Your task to perform on an android device: open device folders in google photos Image 0: 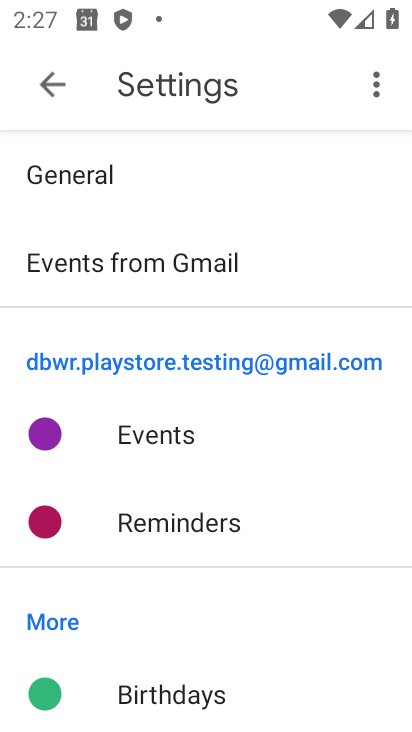
Step 0: press home button
Your task to perform on an android device: open device folders in google photos Image 1: 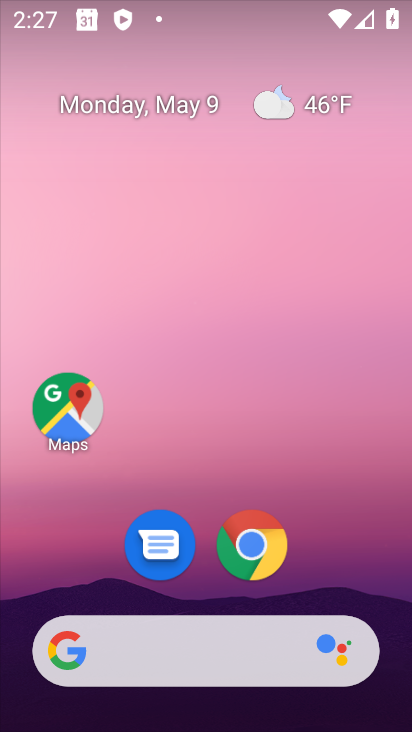
Step 1: drag from (208, 592) to (207, 197)
Your task to perform on an android device: open device folders in google photos Image 2: 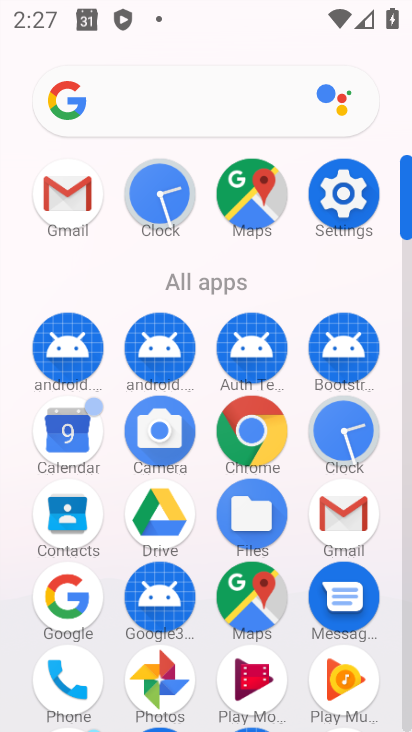
Step 2: click (154, 665)
Your task to perform on an android device: open device folders in google photos Image 3: 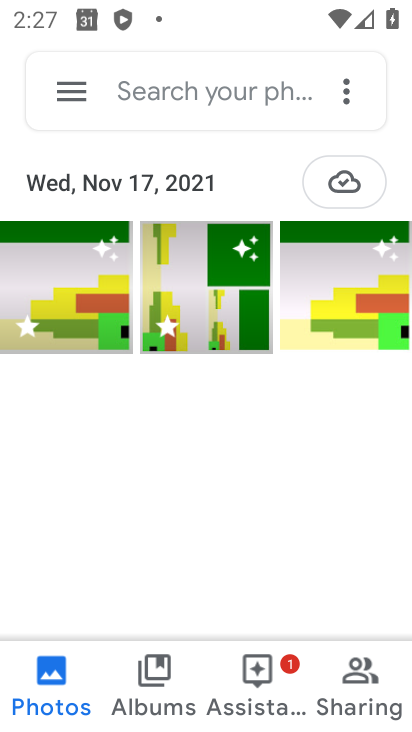
Step 3: click (61, 90)
Your task to perform on an android device: open device folders in google photos Image 4: 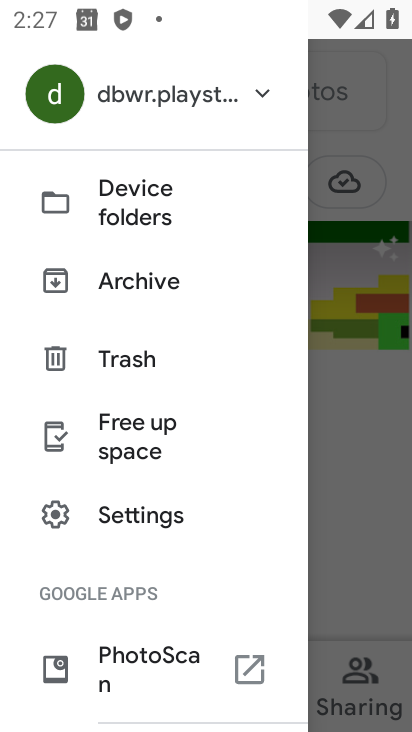
Step 4: click (149, 210)
Your task to perform on an android device: open device folders in google photos Image 5: 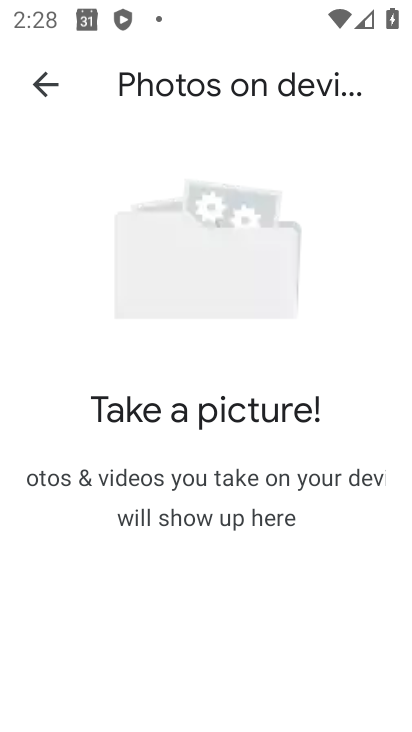
Step 5: task complete